Your task to perform on an android device: delete browsing data in the chrome app Image 0: 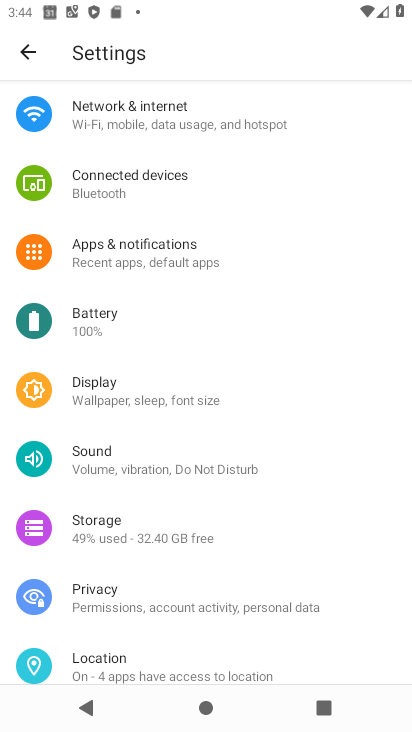
Step 0: press home button
Your task to perform on an android device: delete browsing data in the chrome app Image 1: 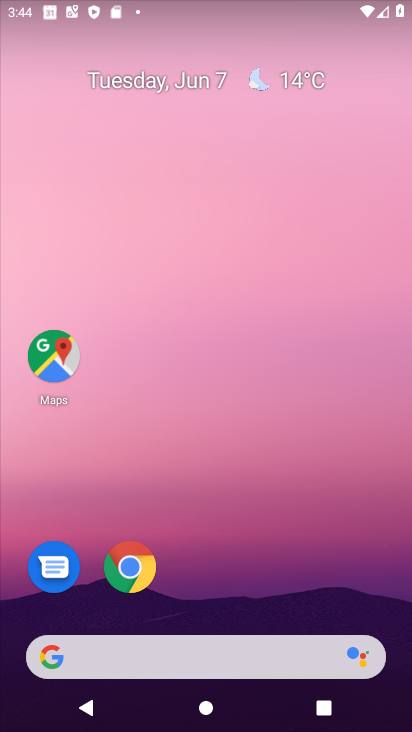
Step 1: click (129, 579)
Your task to perform on an android device: delete browsing data in the chrome app Image 2: 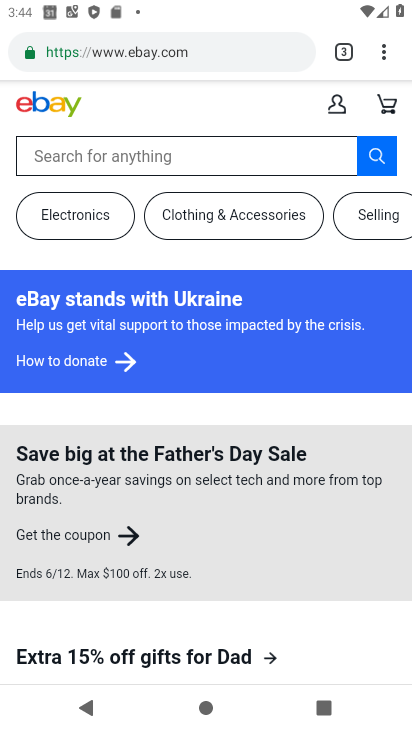
Step 2: click (377, 56)
Your task to perform on an android device: delete browsing data in the chrome app Image 3: 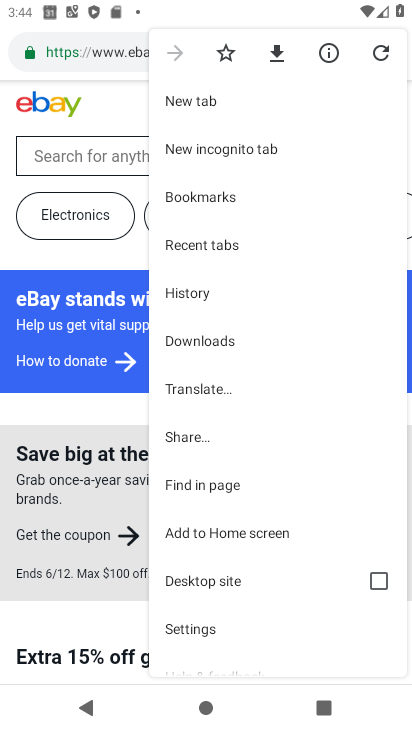
Step 3: click (200, 299)
Your task to perform on an android device: delete browsing data in the chrome app Image 4: 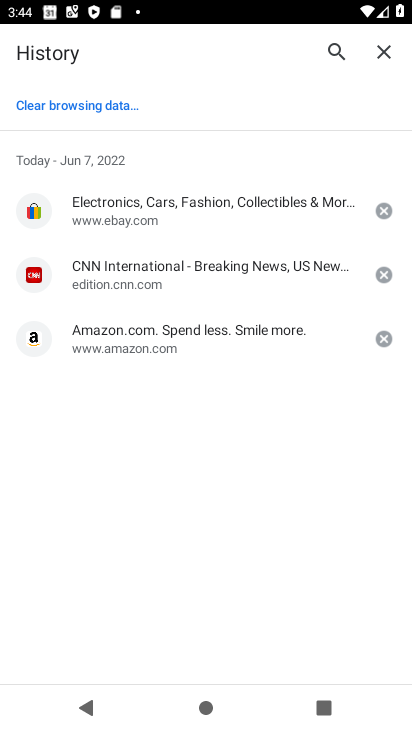
Step 4: click (84, 105)
Your task to perform on an android device: delete browsing data in the chrome app Image 5: 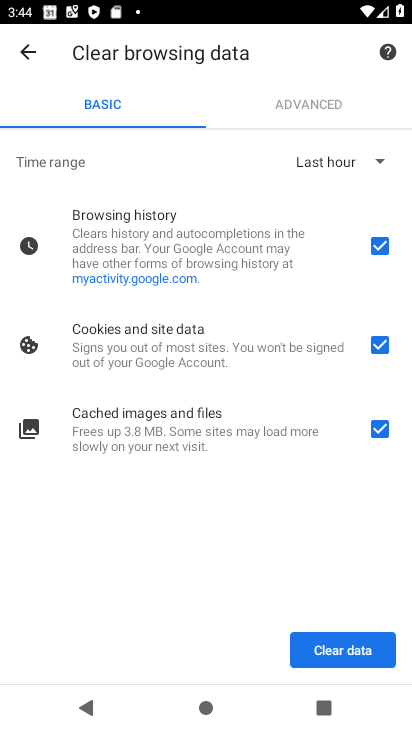
Step 5: click (353, 655)
Your task to perform on an android device: delete browsing data in the chrome app Image 6: 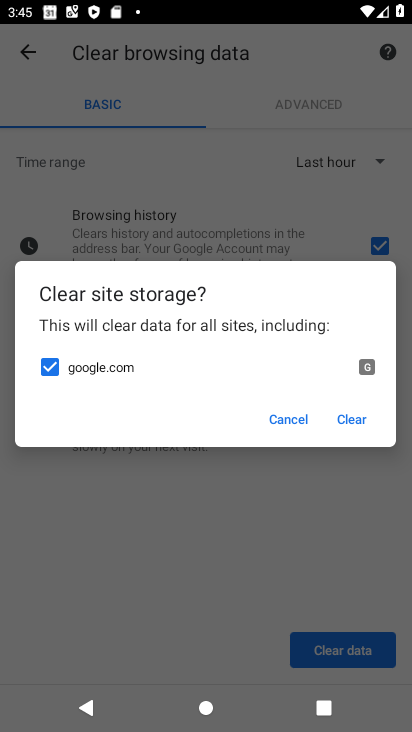
Step 6: click (344, 411)
Your task to perform on an android device: delete browsing data in the chrome app Image 7: 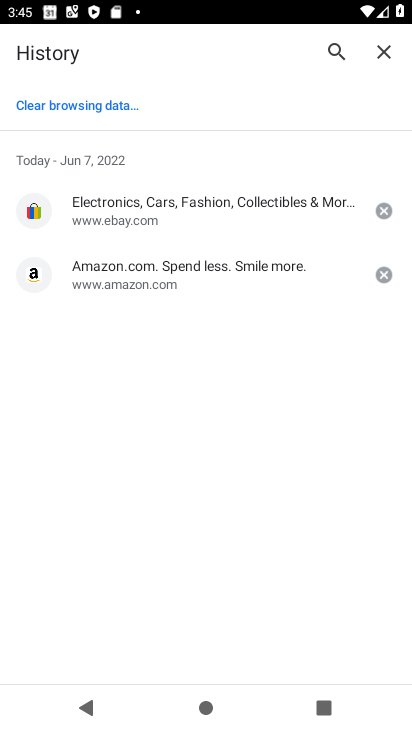
Step 7: task complete